Your task to perform on an android device: toggle pop-ups in chrome Image 0: 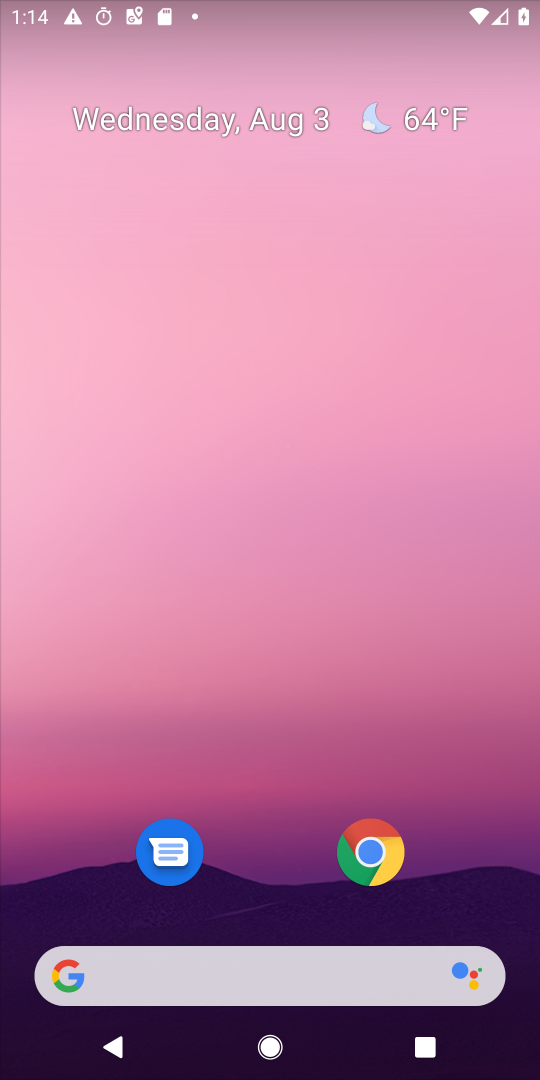
Step 0: drag from (474, 886) to (206, 158)
Your task to perform on an android device: toggle pop-ups in chrome Image 1: 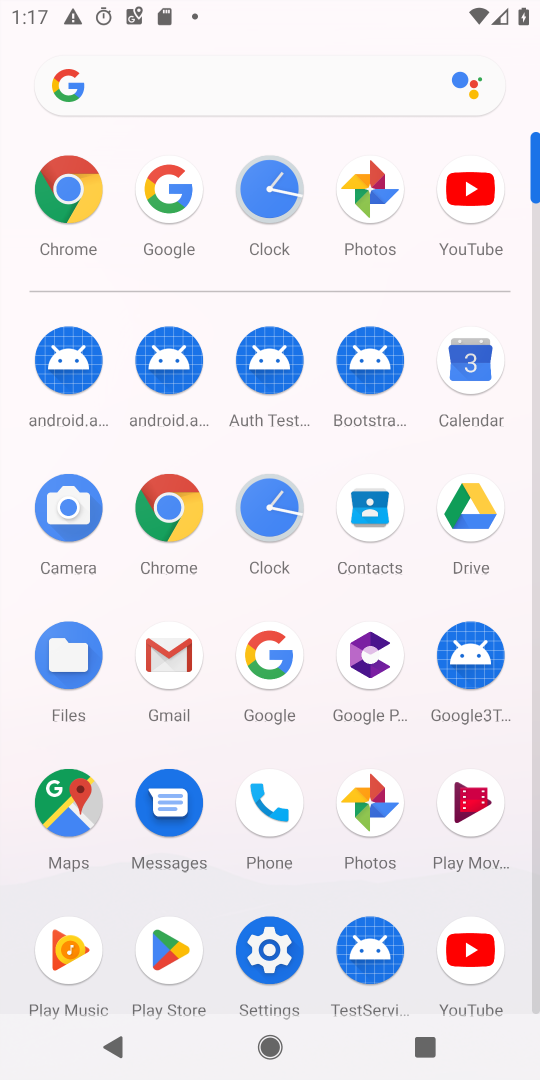
Step 1: click (159, 508)
Your task to perform on an android device: toggle pop-ups in chrome Image 2: 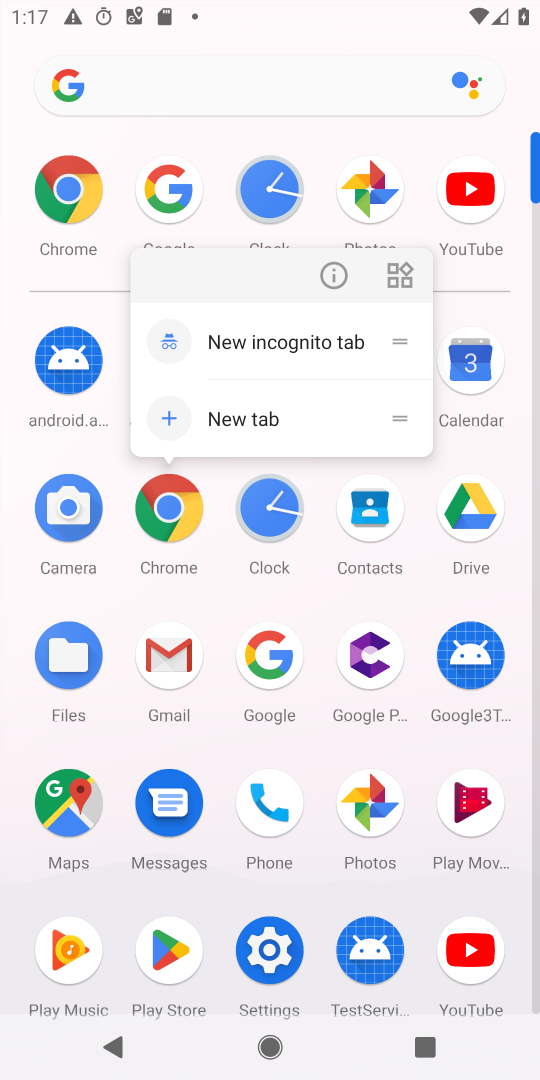
Step 2: click (159, 508)
Your task to perform on an android device: toggle pop-ups in chrome Image 3: 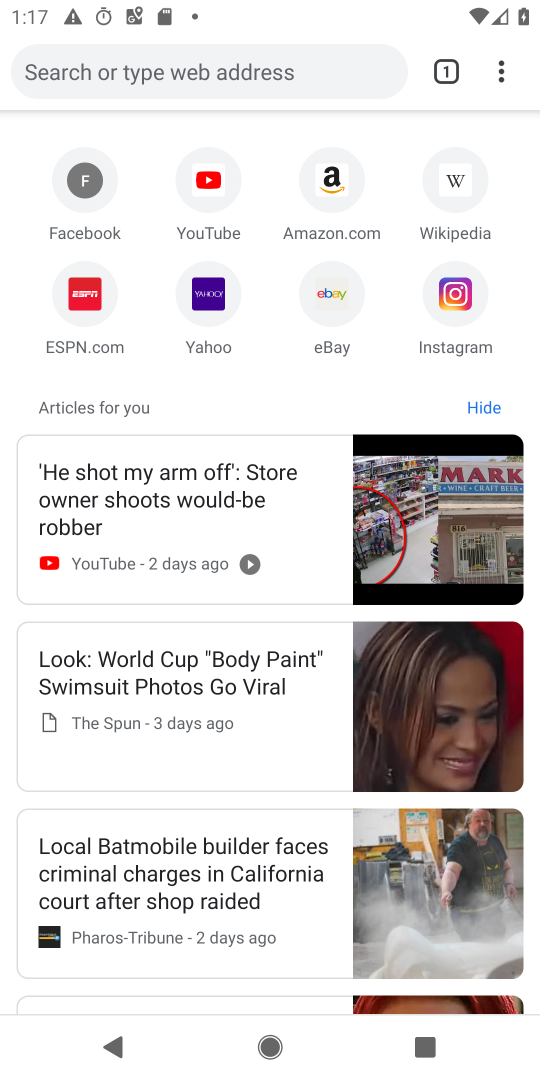
Step 3: click (501, 73)
Your task to perform on an android device: toggle pop-ups in chrome Image 4: 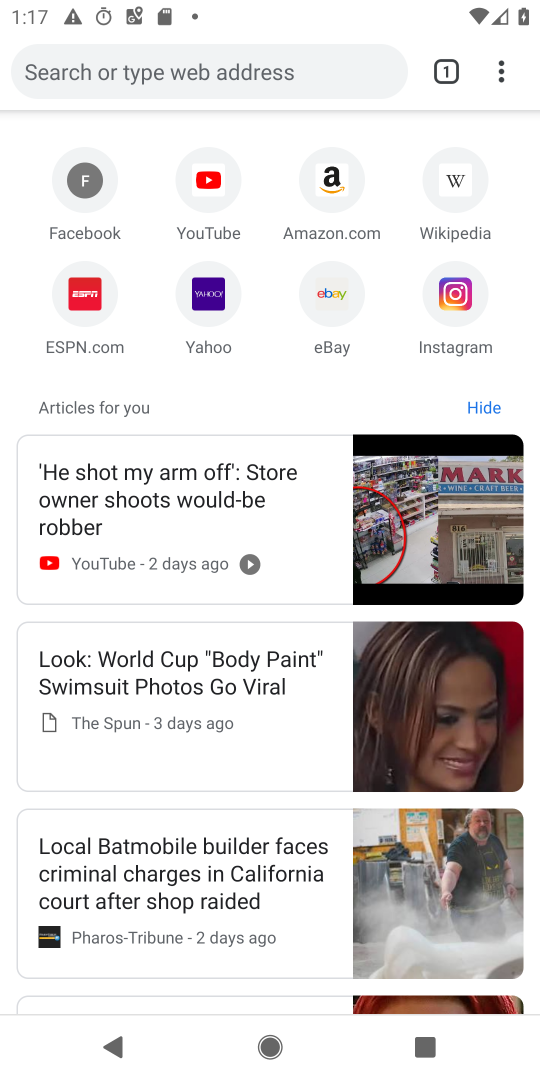
Step 4: click (501, 73)
Your task to perform on an android device: toggle pop-ups in chrome Image 5: 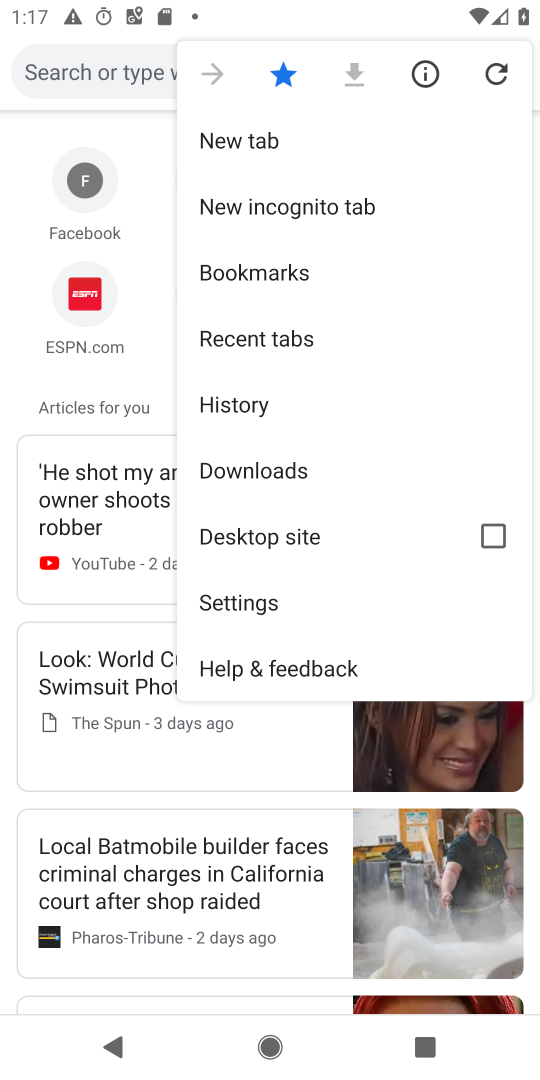
Step 5: click (242, 597)
Your task to perform on an android device: toggle pop-ups in chrome Image 6: 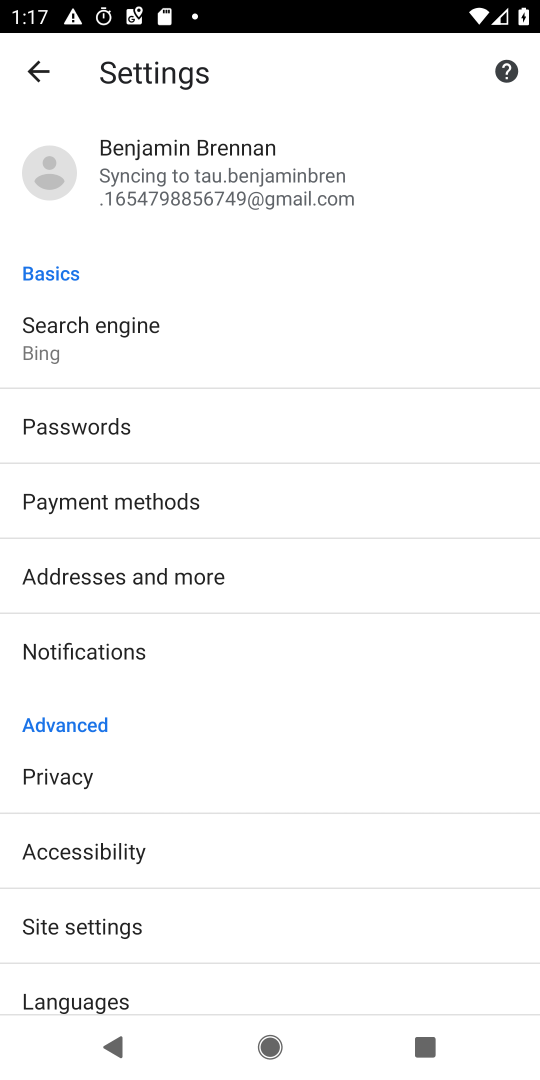
Step 6: click (140, 941)
Your task to perform on an android device: toggle pop-ups in chrome Image 7: 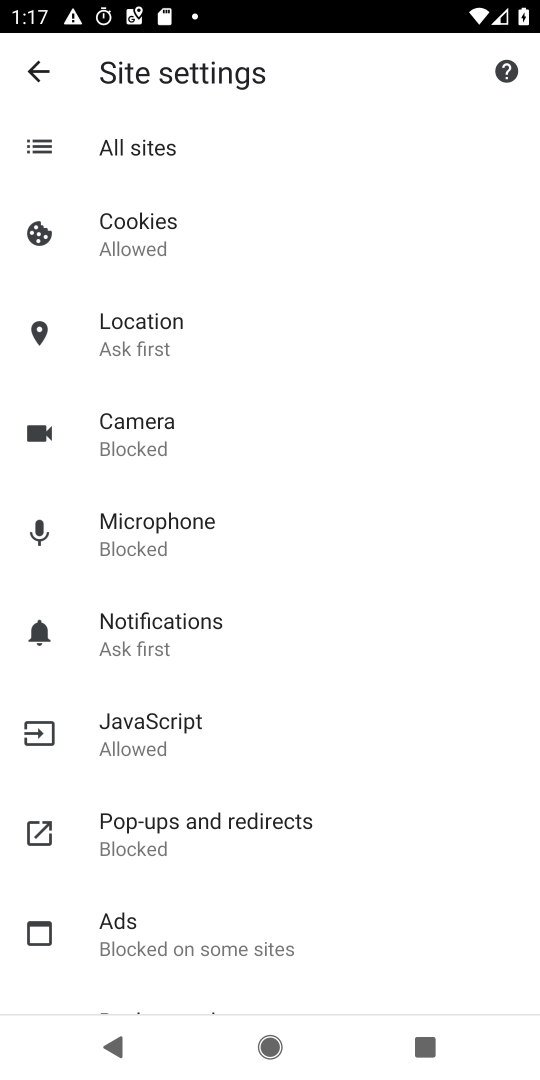
Step 7: click (202, 844)
Your task to perform on an android device: toggle pop-ups in chrome Image 8: 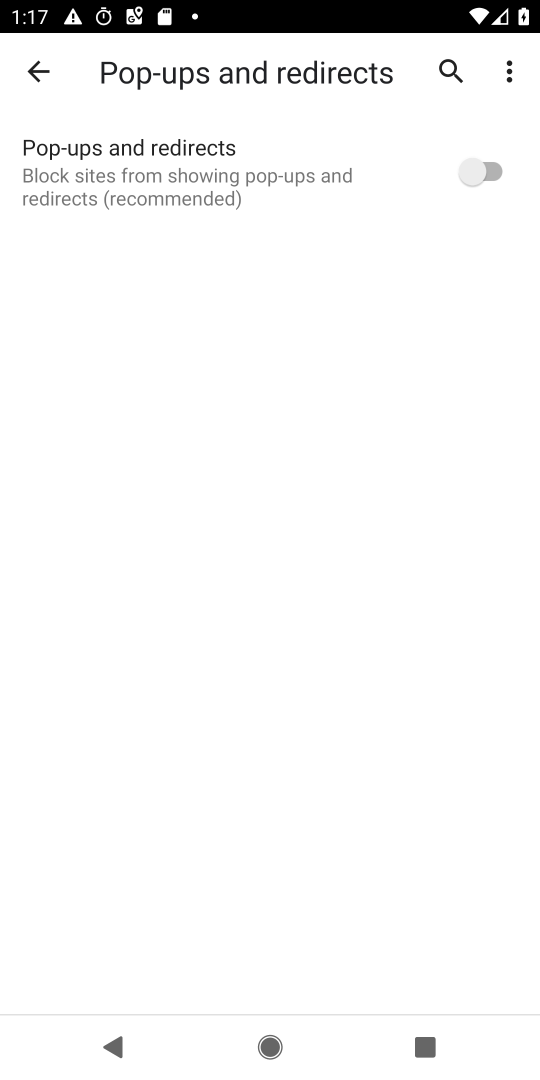
Step 8: click (490, 177)
Your task to perform on an android device: toggle pop-ups in chrome Image 9: 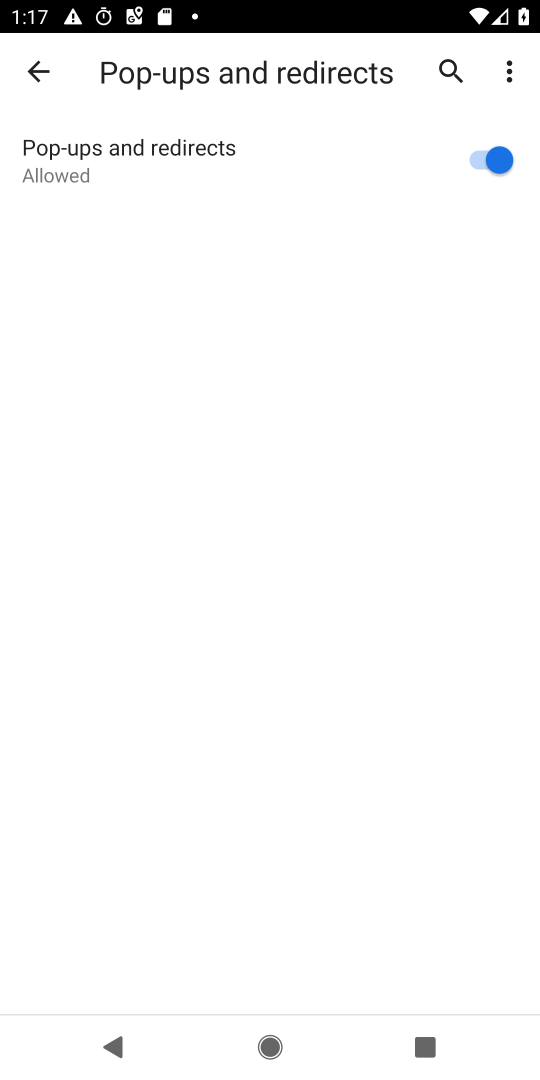
Step 9: task complete